Your task to perform on an android device: turn off picture-in-picture Image 0: 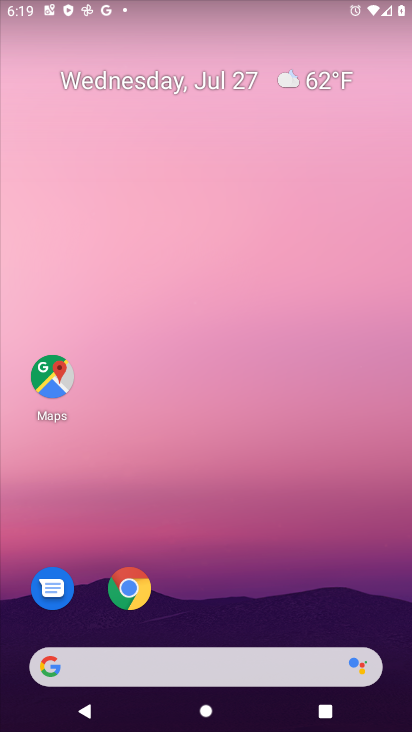
Step 0: drag from (195, 551) to (222, 65)
Your task to perform on an android device: turn off picture-in-picture Image 1: 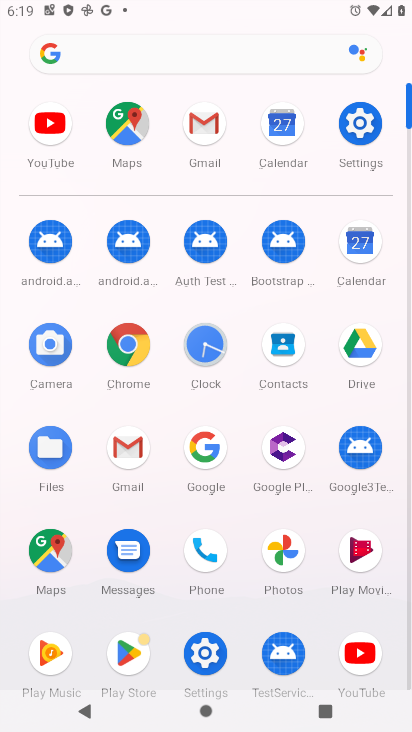
Step 1: click (353, 123)
Your task to perform on an android device: turn off picture-in-picture Image 2: 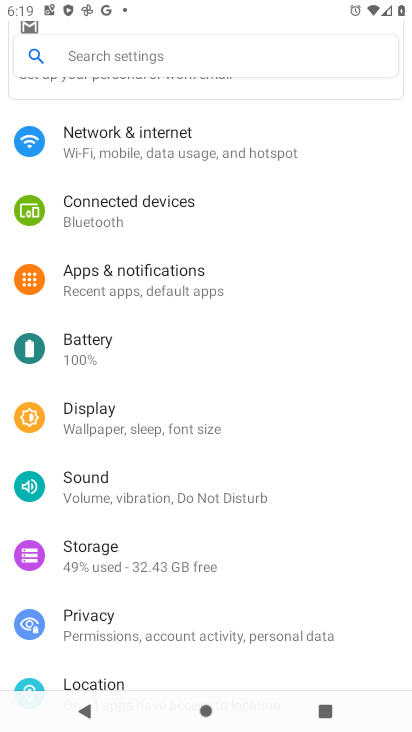
Step 2: click (116, 274)
Your task to perform on an android device: turn off picture-in-picture Image 3: 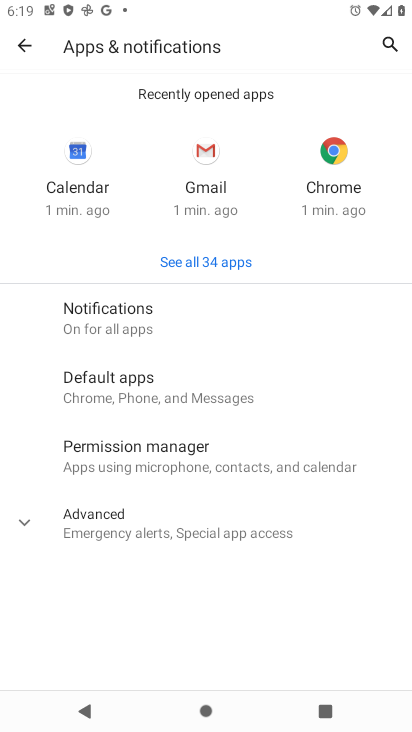
Step 3: click (93, 529)
Your task to perform on an android device: turn off picture-in-picture Image 4: 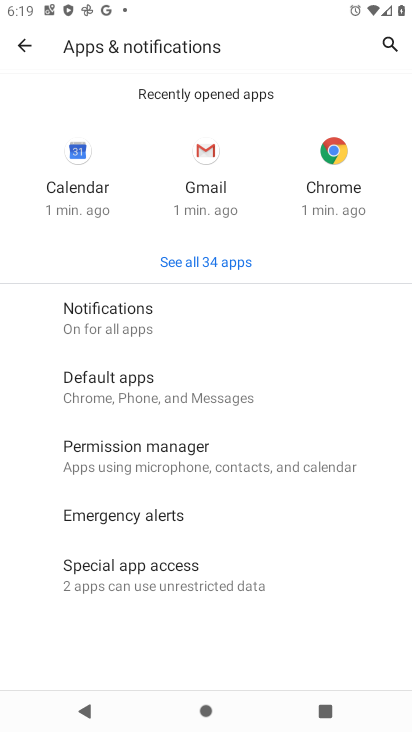
Step 4: click (106, 580)
Your task to perform on an android device: turn off picture-in-picture Image 5: 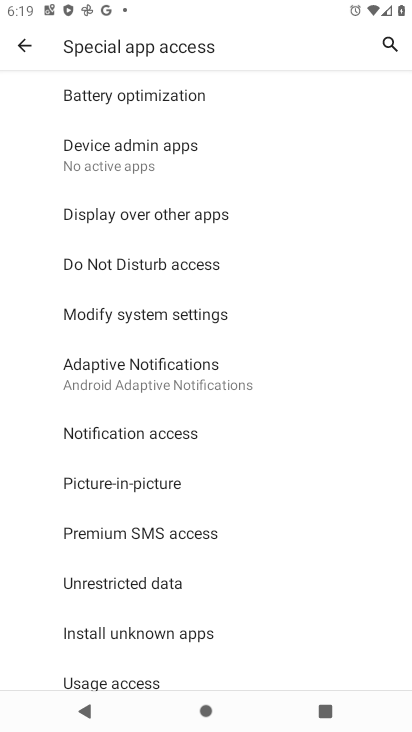
Step 5: click (150, 487)
Your task to perform on an android device: turn off picture-in-picture Image 6: 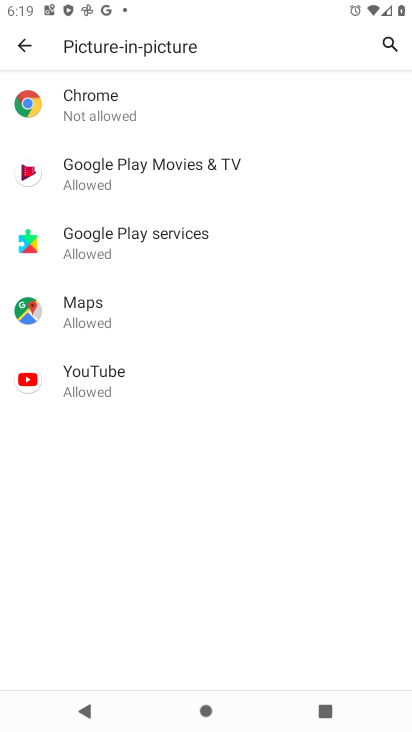
Step 6: click (118, 110)
Your task to perform on an android device: turn off picture-in-picture Image 7: 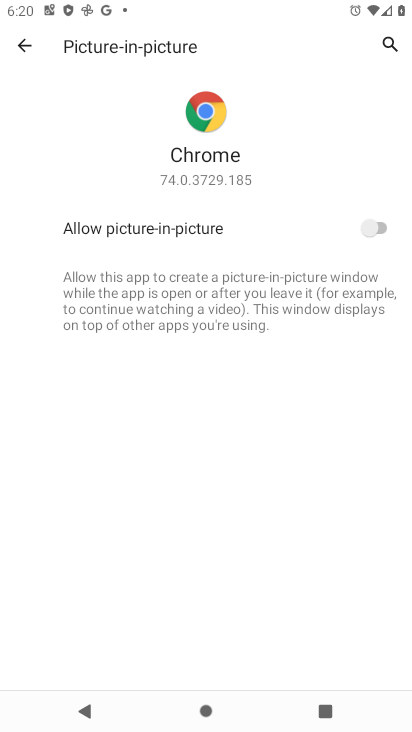
Step 7: task complete